Your task to perform on an android device: check android version Image 0: 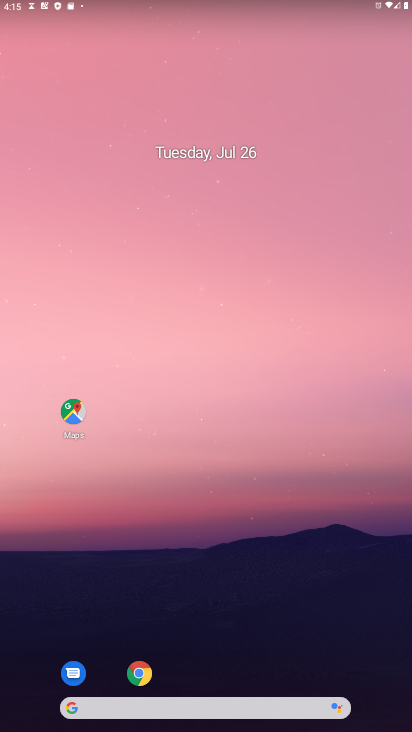
Step 0: drag from (190, 706) to (235, 140)
Your task to perform on an android device: check android version Image 1: 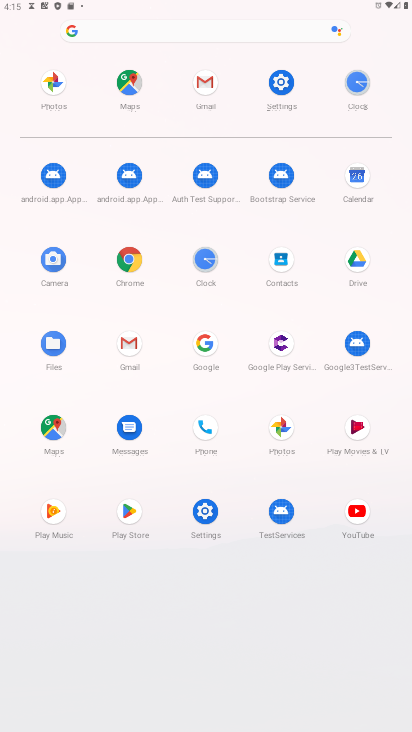
Step 1: click (281, 81)
Your task to perform on an android device: check android version Image 2: 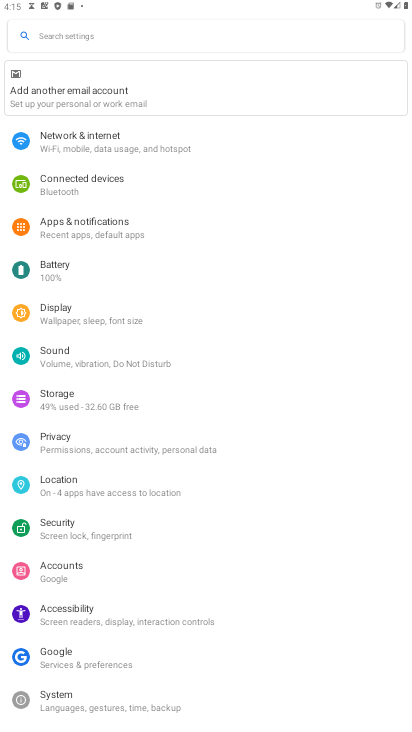
Step 2: drag from (91, 575) to (176, 203)
Your task to perform on an android device: check android version Image 3: 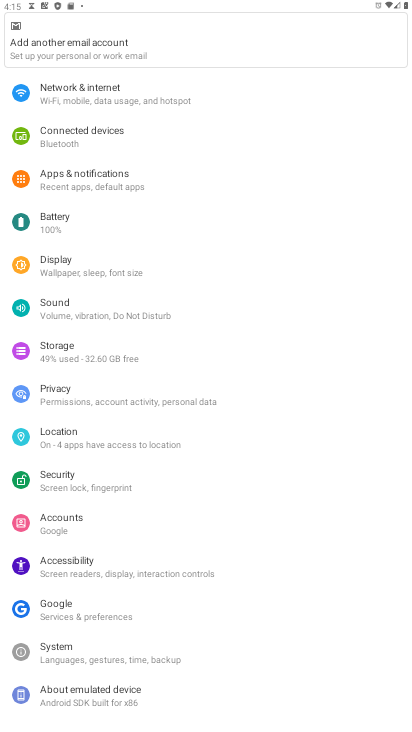
Step 3: click (103, 688)
Your task to perform on an android device: check android version Image 4: 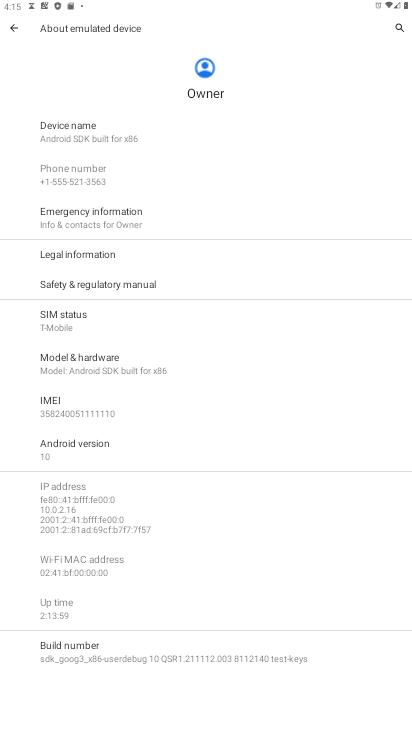
Step 4: click (92, 448)
Your task to perform on an android device: check android version Image 5: 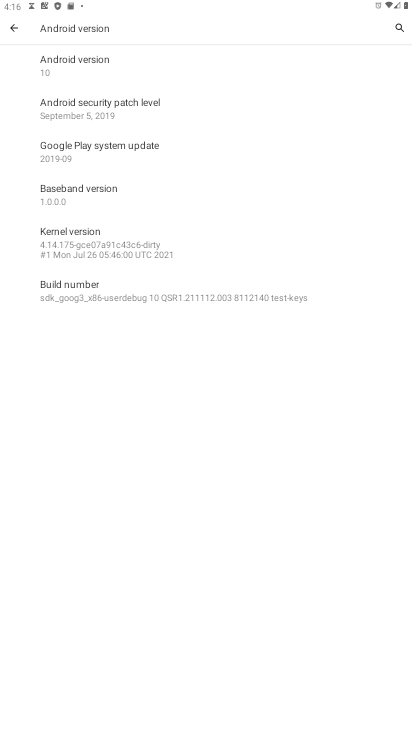
Step 5: task complete